Your task to perform on an android device: Search for sushi restaurants on Maps Image 0: 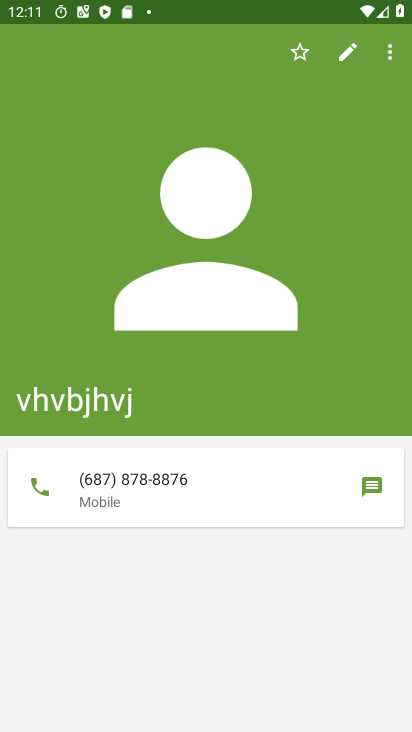
Step 0: press home button
Your task to perform on an android device: Search for sushi restaurants on Maps Image 1: 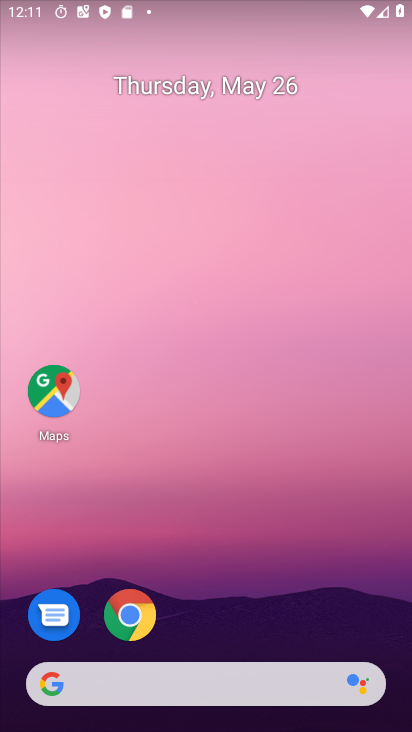
Step 1: click (55, 394)
Your task to perform on an android device: Search for sushi restaurants on Maps Image 2: 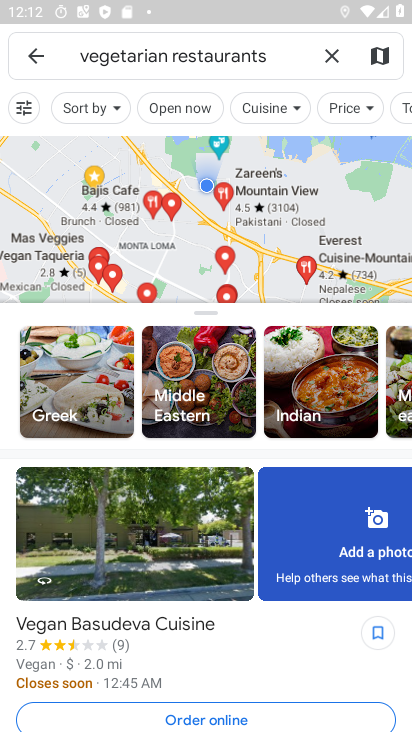
Step 2: click (333, 49)
Your task to perform on an android device: Search for sushi restaurants on Maps Image 3: 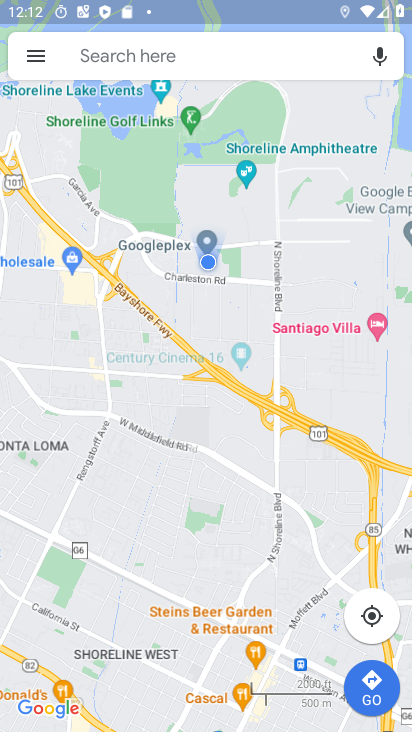
Step 3: click (209, 54)
Your task to perform on an android device: Search for sushi restaurants on Maps Image 4: 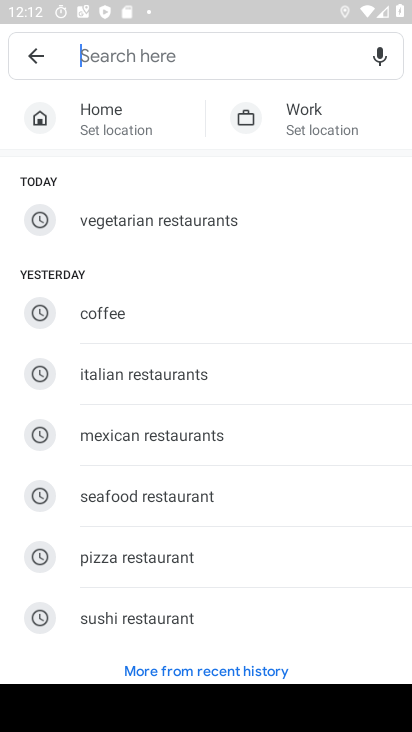
Step 4: click (157, 628)
Your task to perform on an android device: Search for sushi restaurants on Maps Image 5: 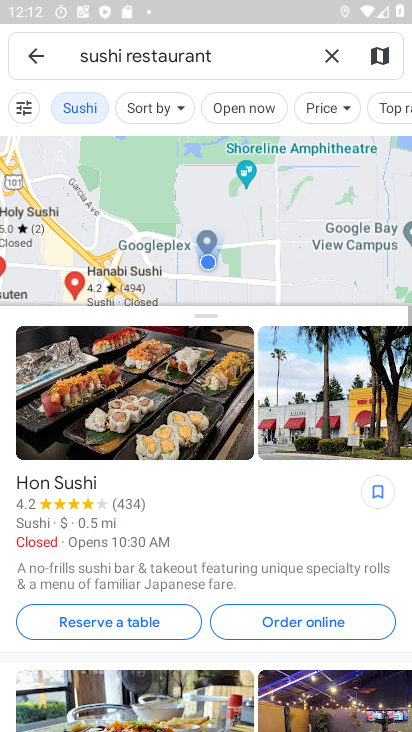
Step 5: task complete